Your task to perform on an android device: open app "DuckDuckGo Privacy Browser" (install if not already installed) Image 0: 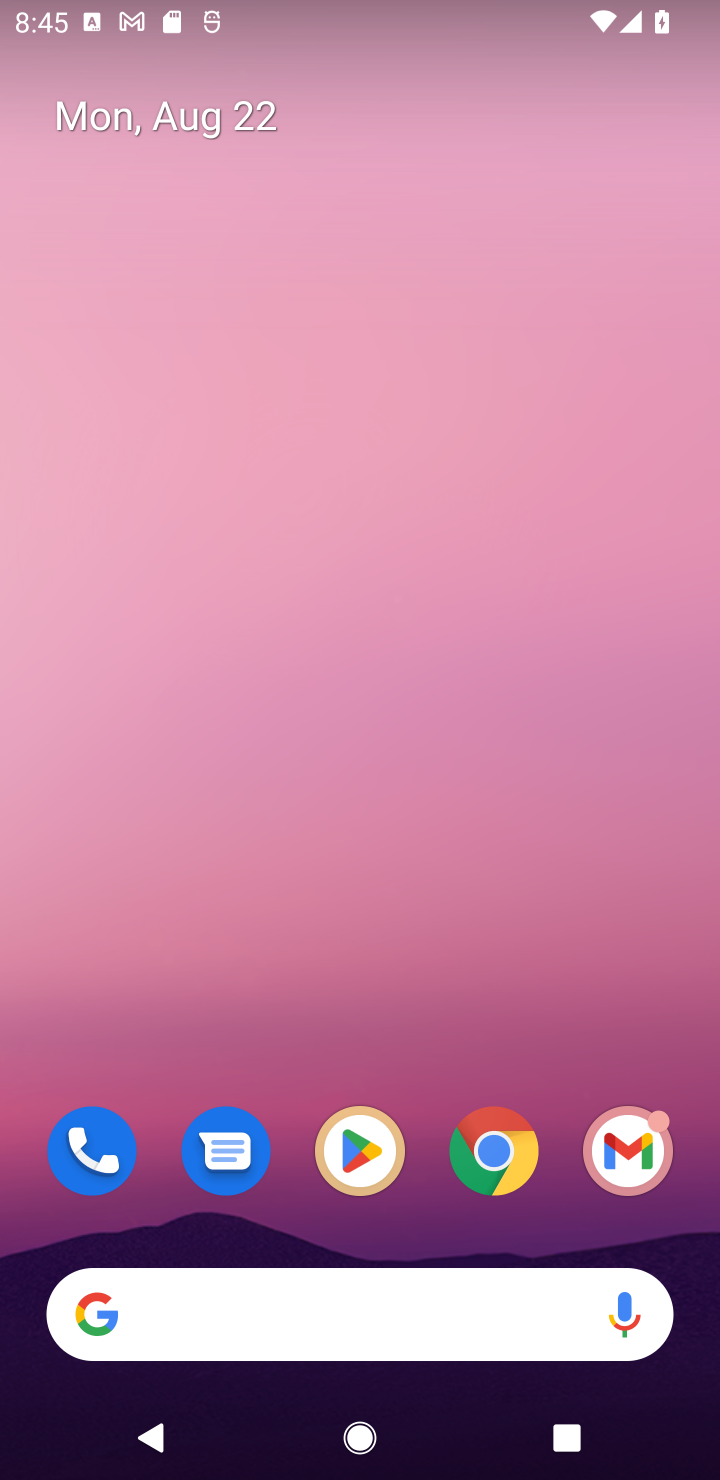
Step 0: click (348, 1147)
Your task to perform on an android device: open app "DuckDuckGo Privacy Browser" (install if not already installed) Image 1: 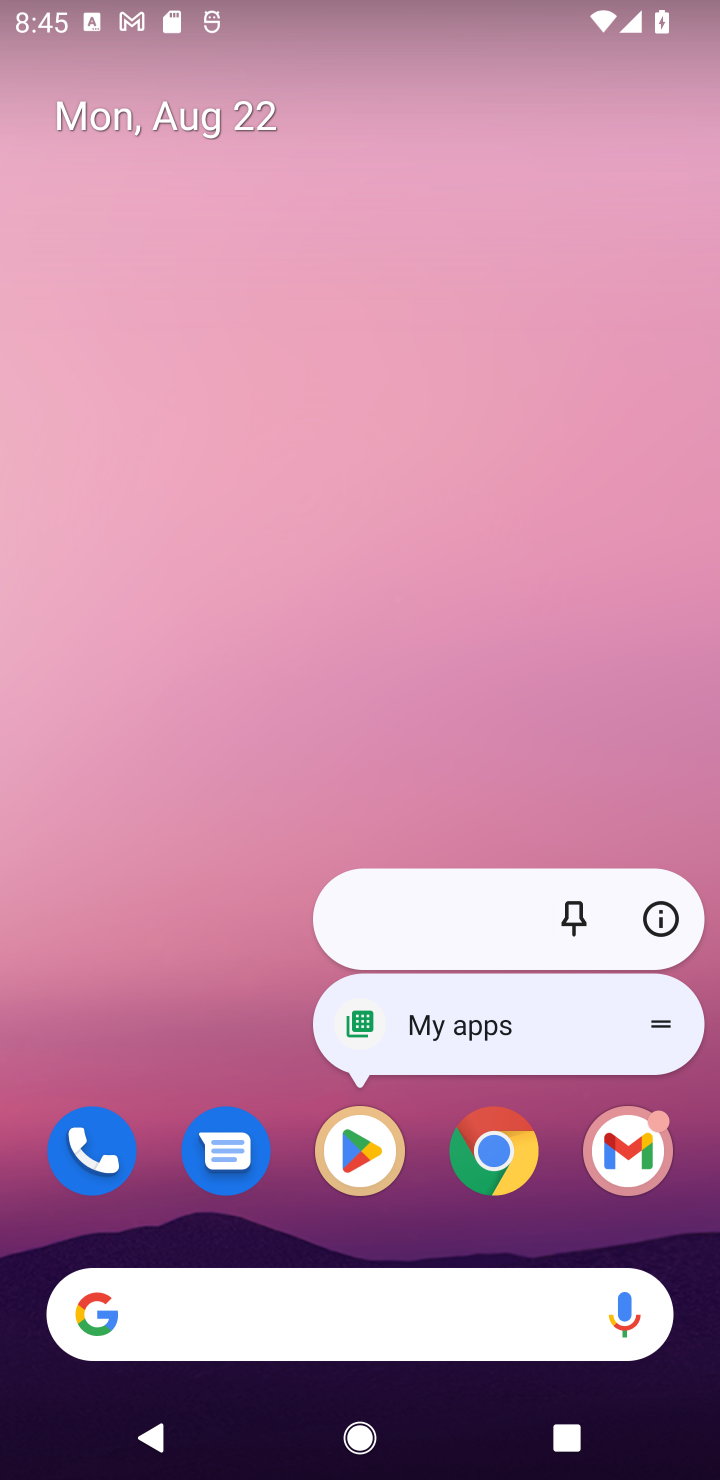
Step 1: click (348, 1153)
Your task to perform on an android device: open app "DuckDuckGo Privacy Browser" (install if not already installed) Image 2: 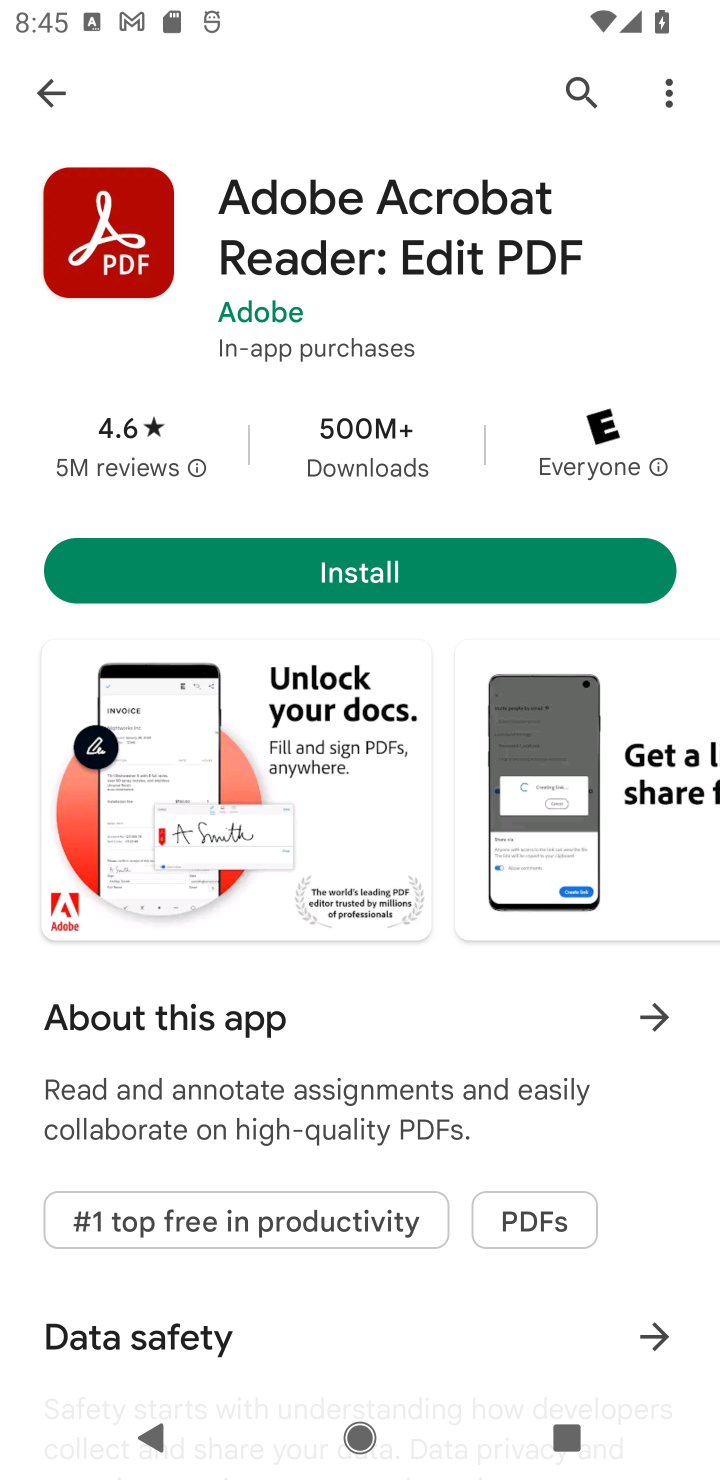
Step 2: click (575, 90)
Your task to perform on an android device: open app "DuckDuckGo Privacy Browser" (install if not already installed) Image 3: 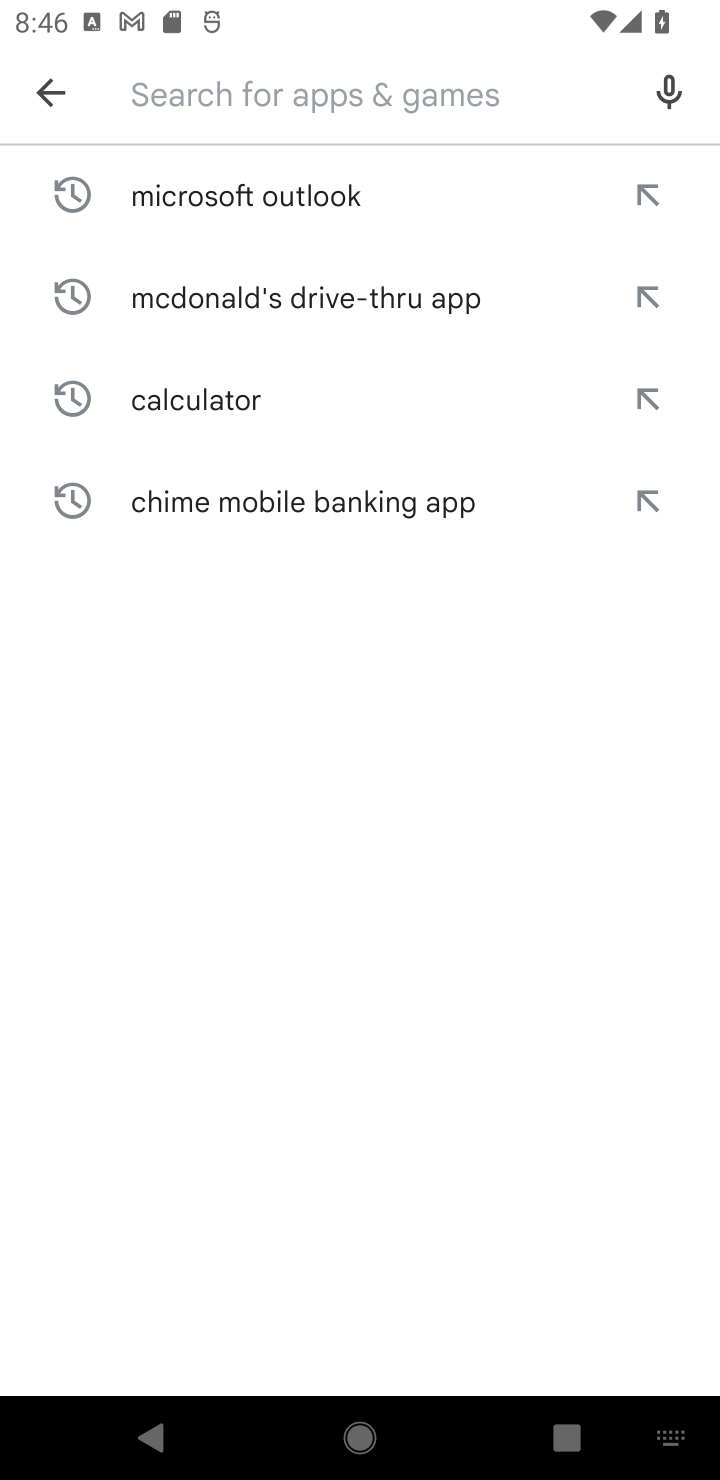
Step 3: type "DuckDuckGo Privacy Browser"
Your task to perform on an android device: open app "DuckDuckGo Privacy Browser" (install if not already installed) Image 4: 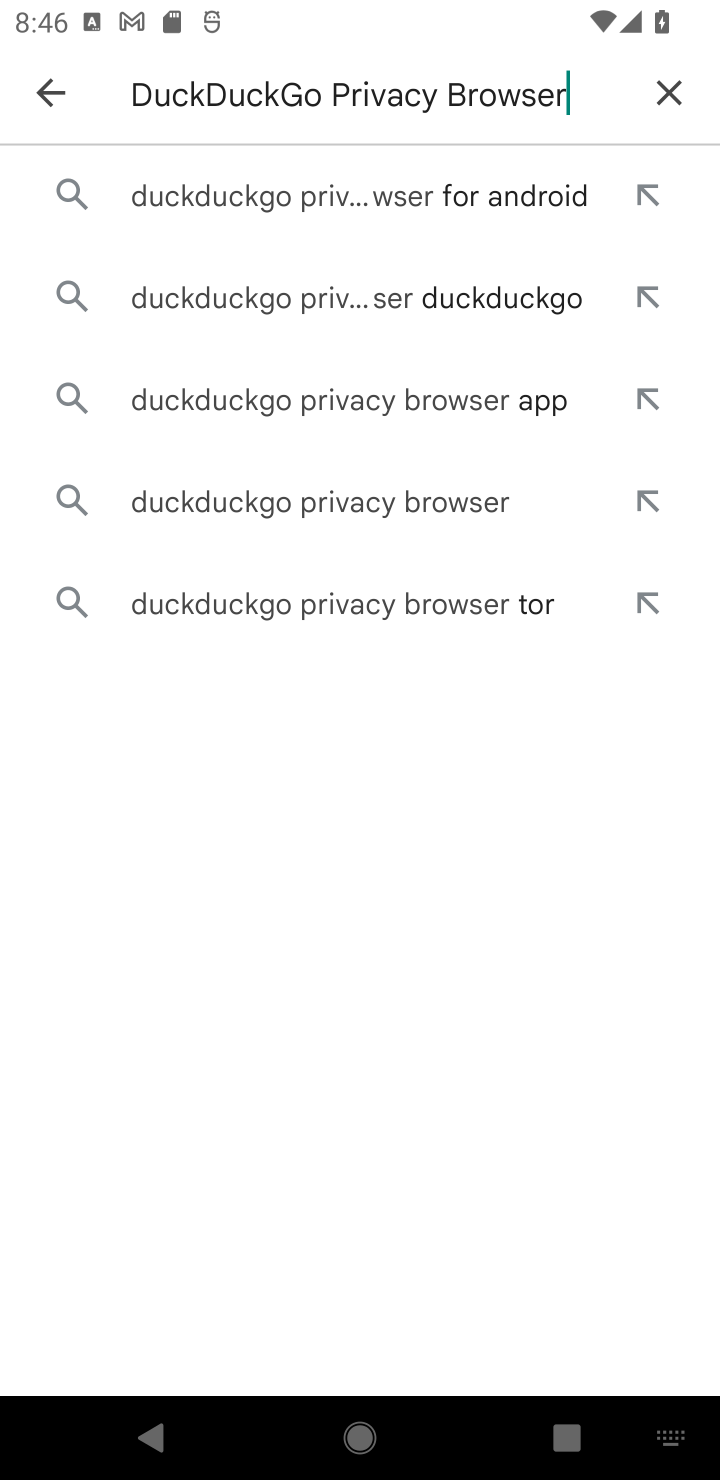
Step 4: click (438, 182)
Your task to perform on an android device: open app "DuckDuckGo Privacy Browser" (install if not already installed) Image 5: 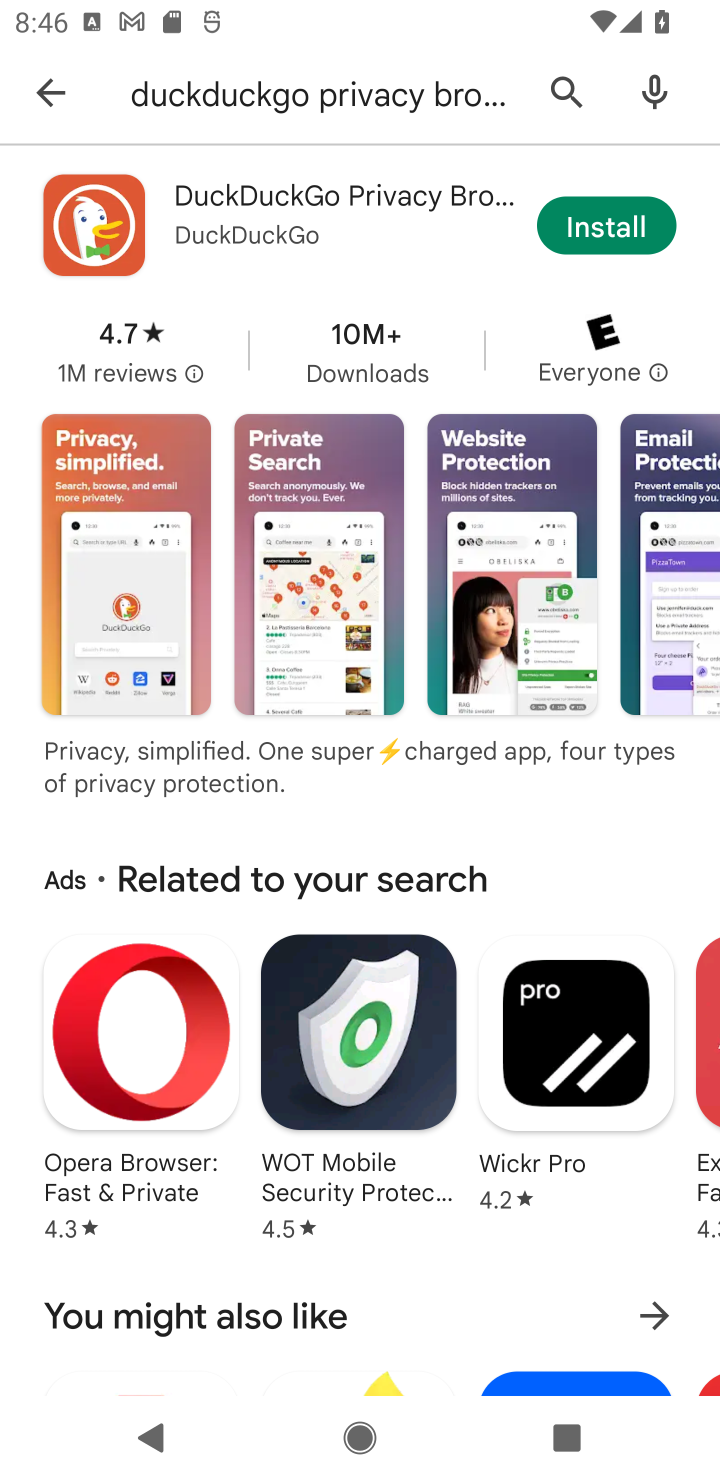
Step 5: click (634, 196)
Your task to perform on an android device: open app "DuckDuckGo Privacy Browser" (install if not already installed) Image 6: 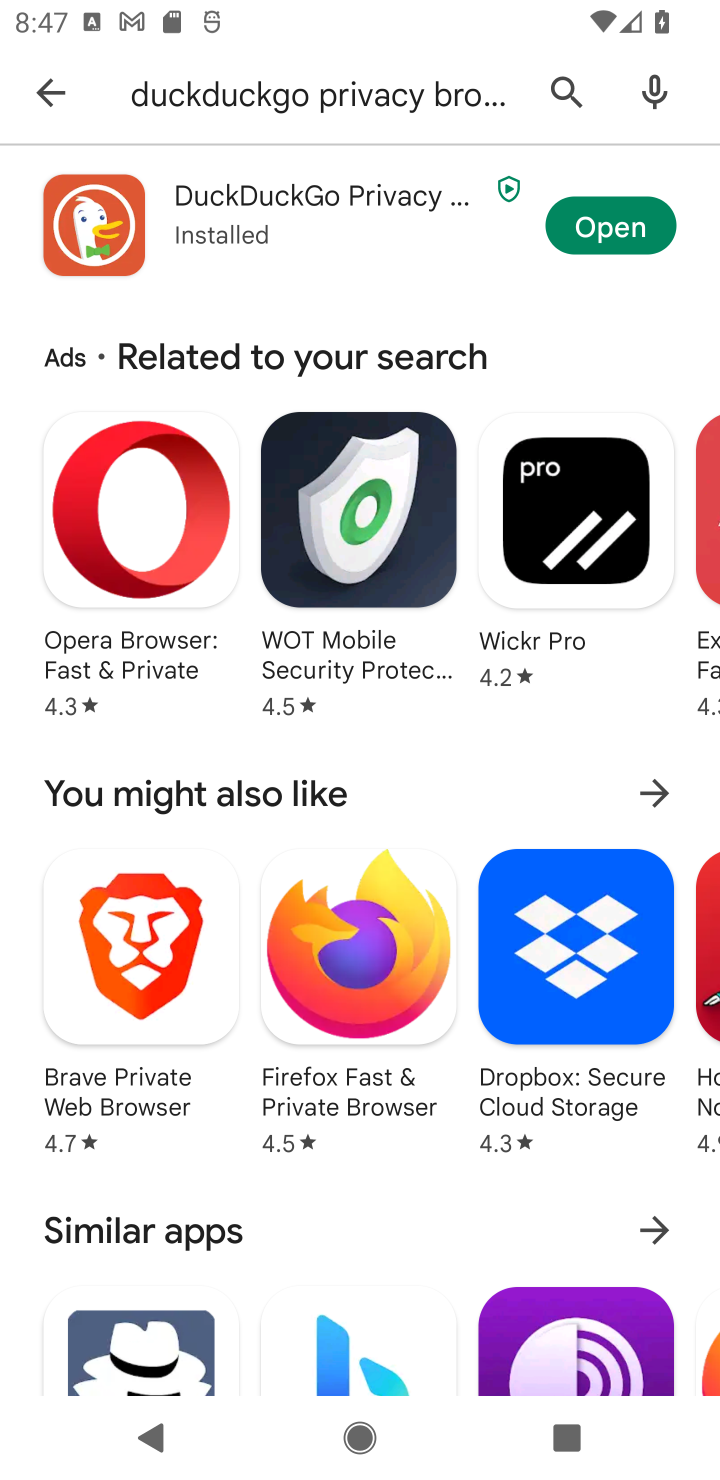
Step 6: click (628, 226)
Your task to perform on an android device: open app "DuckDuckGo Privacy Browser" (install if not already installed) Image 7: 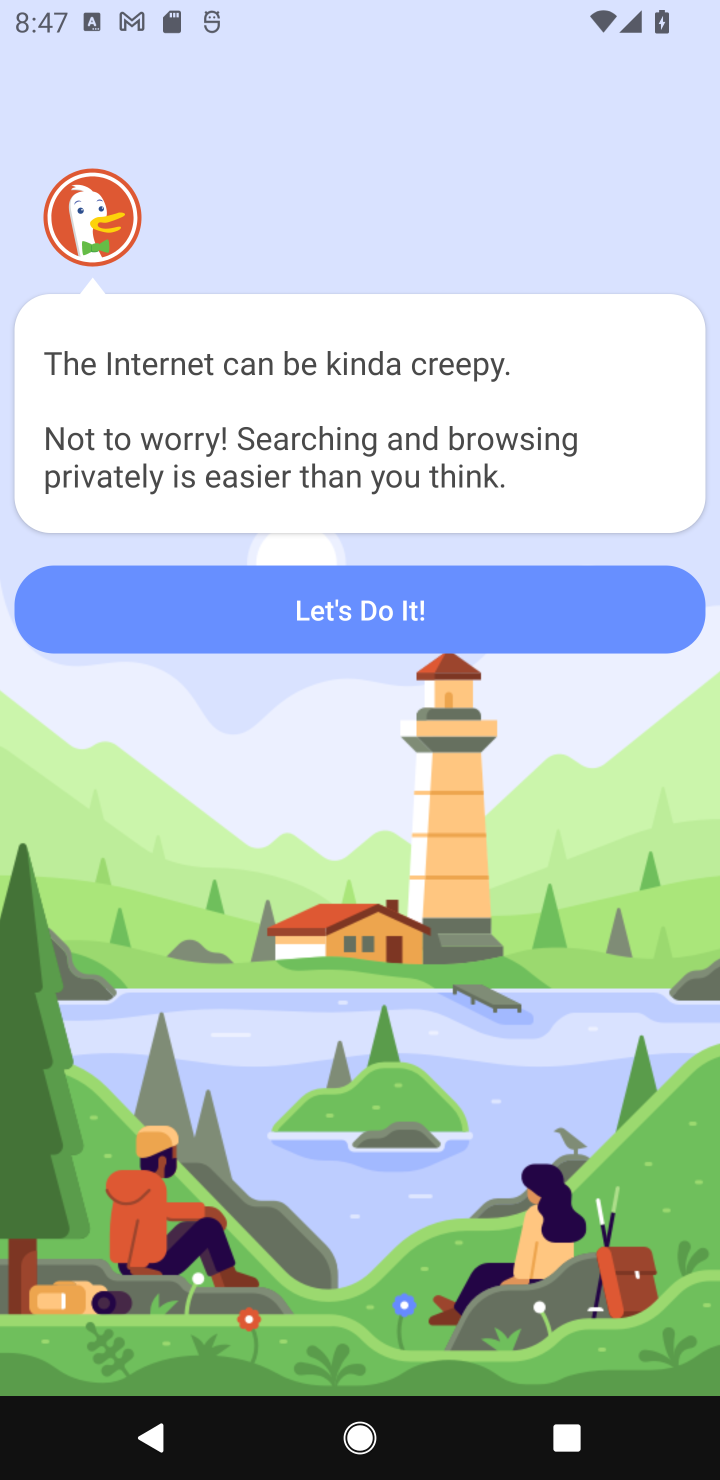
Step 7: task complete